Your task to perform on an android device: change the clock display to show seconds Image 0: 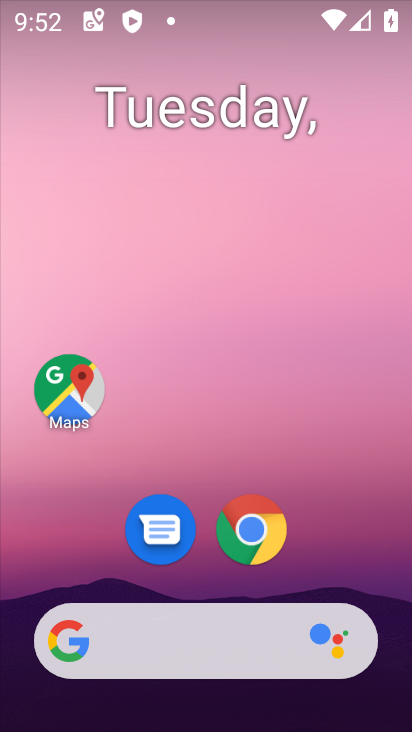
Step 0: drag from (166, 557) to (244, 0)
Your task to perform on an android device: change the clock display to show seconds Image 1: 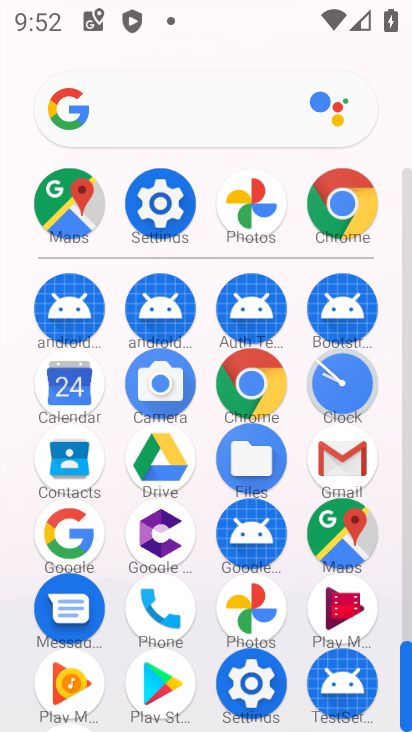
Step 1: click (351, 393)
Your task to perform on an android device: change the clock display to show seconds Image 2: 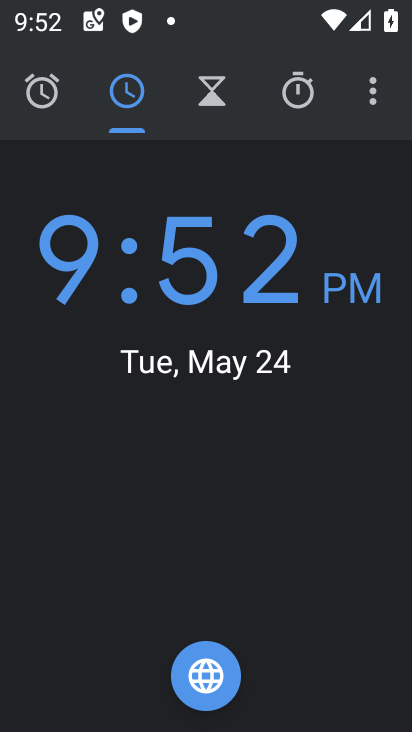
Step 2: click (379, 100)
Your task to perform on an android device: change the clock display to show seconds Image 3: 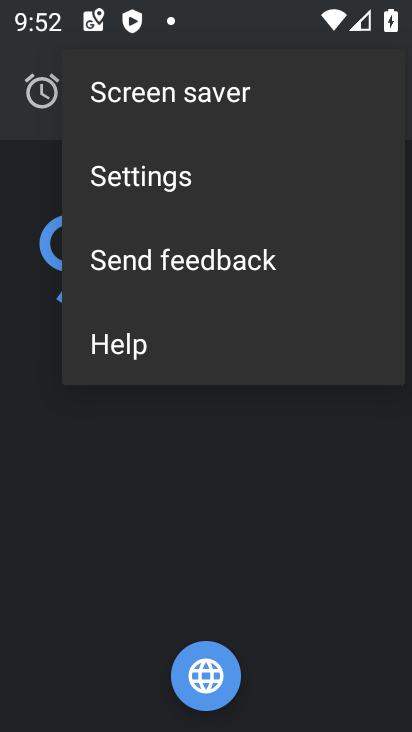
Step 3: click (164, 179)
Your task to perform on an android device: change the clock display to show seconds Image 4: 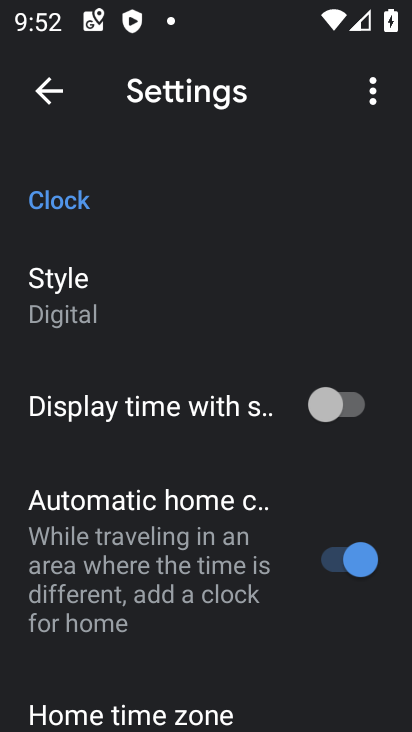
Step 4: click (222, 406)
Your task to perform on an android device: change the clock display to show seconds Image 5: 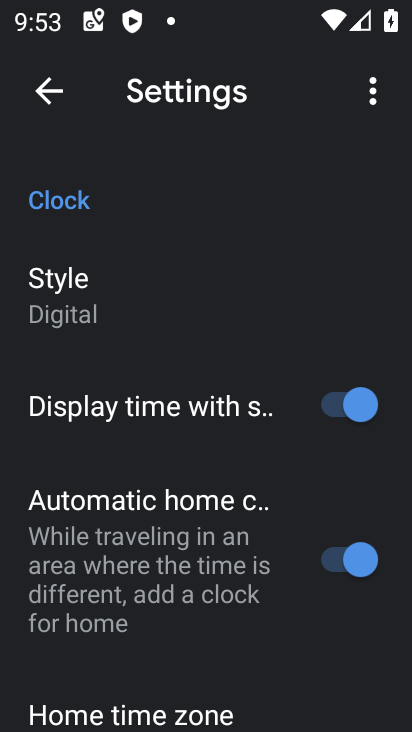
Step 5: task complete